Your task to perform on an android device: Do I have any events today? Image 0: 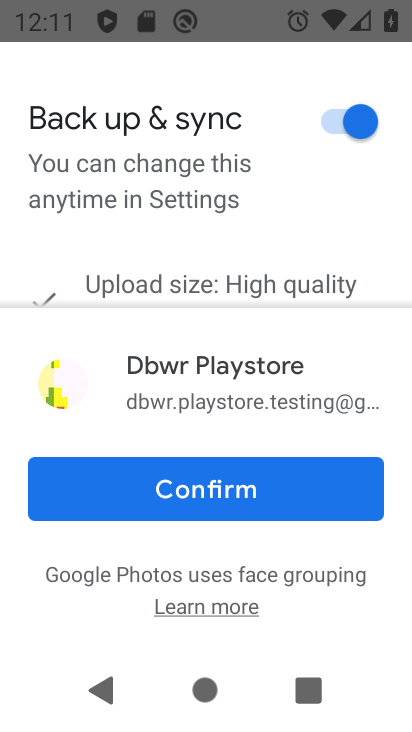
Step 0: press home button
Your task to perform on an android device: Do I have any events today? Image 1: 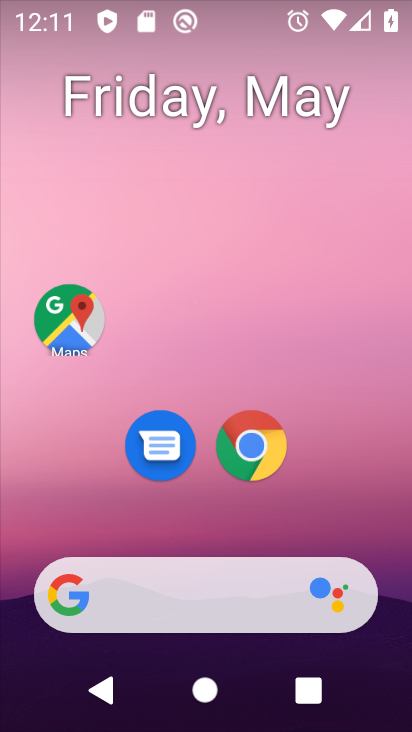
Step 1: drag from (384, 554) to (377, 11)
Your task to perform on an android device: Do I have any events today? Image 2: 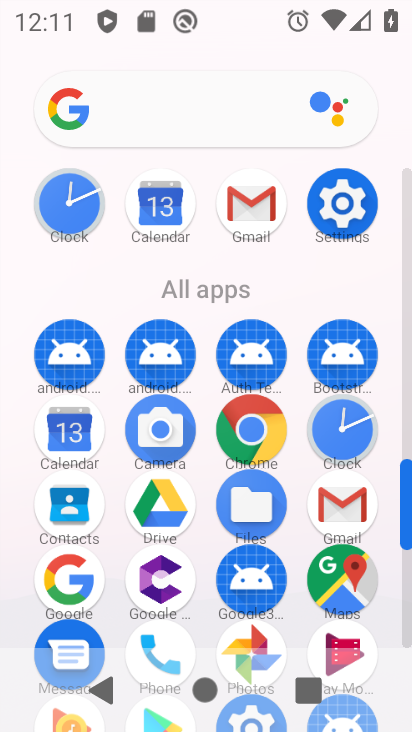
Step 2: click (157, 202)
Your task to perform on an android device: Do I have any events today? Image 3: 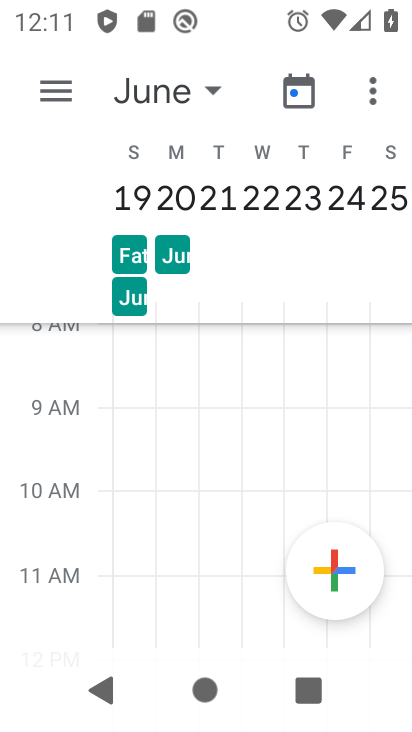
Step 3: click (299, 94)
Your task to perform on an android device: Do I have any events today? Image 4: 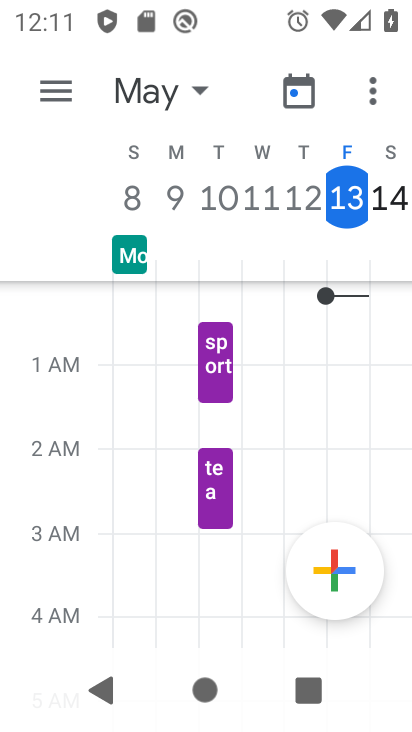
Step 4: click (64, 91)
Your task to perform on an android device: Do I have any events today? Image 5: 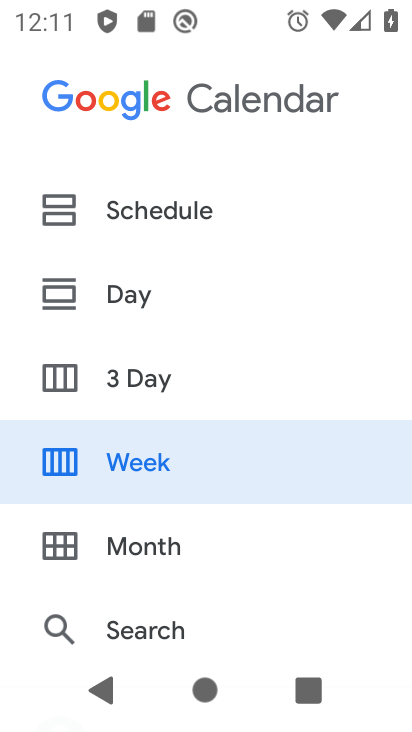
Step 5: click (154, 206)
Your task to perform on an android device: Do I have any events today? Image 6: 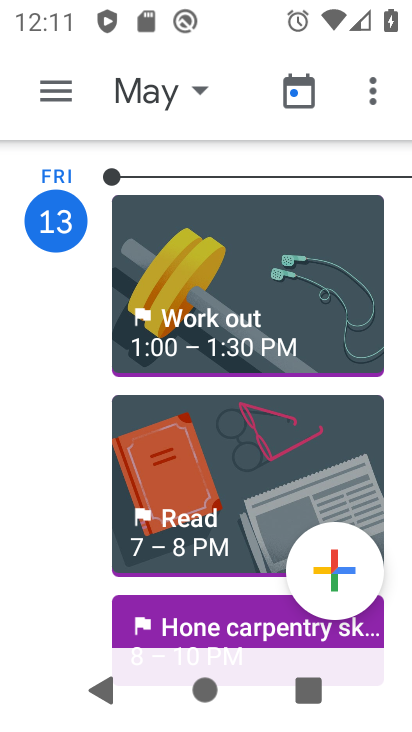
Step 6: click (142, 235)
Your task to perform on an android device: Do I have any events today? Image 7: 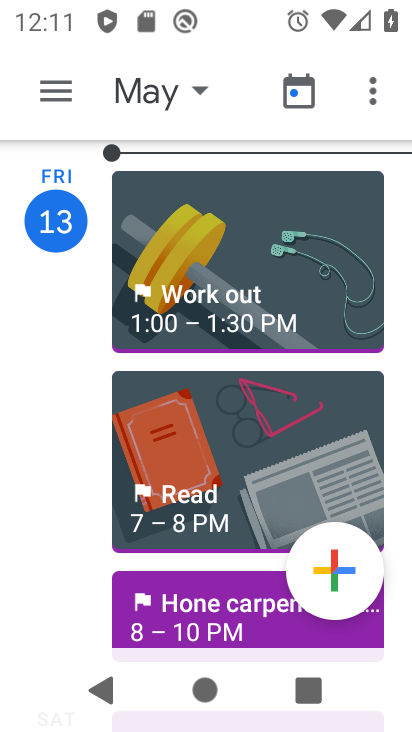
Step 7: click (189, 574)
Your task to perform on an android device: Do I have any events today? Image 8: 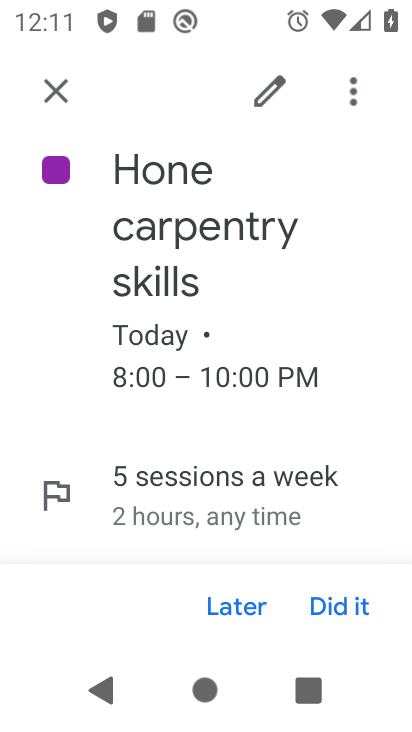
Step 8: task complete